Your task to perform on an android device: Clear the cart on bestbuy.com. Search for "alienware area 51" on bestbuy.com, select the first entry, add it to the cart, then select checkout. Image 0: 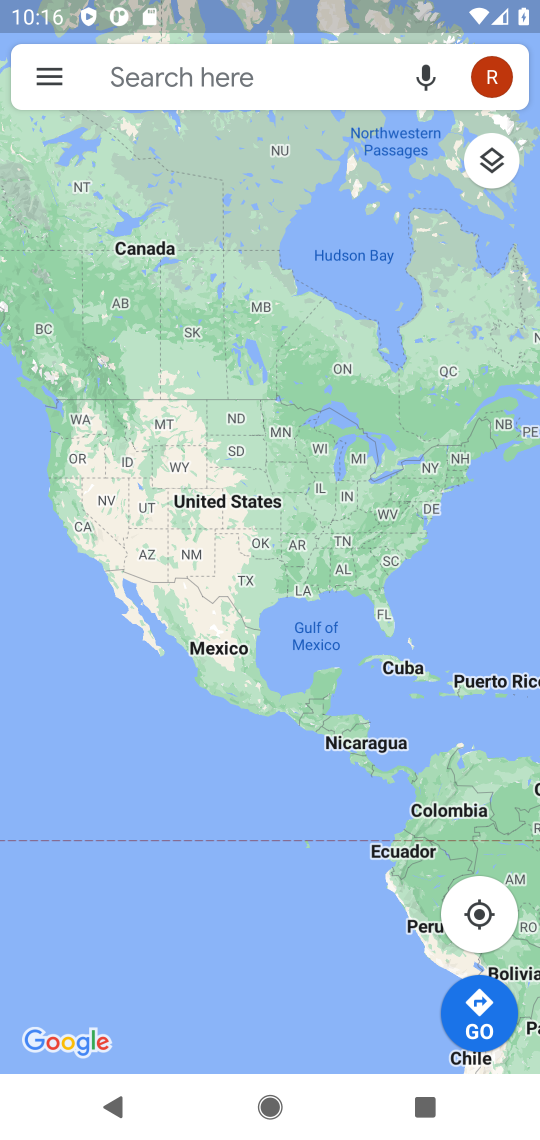
Step 0: press home button
Your task to perform on an android device: Clear the cart on bestbuy.com. Search for "alienware area 51" on bestbuy.com, select the first entry, add it to the cart, then select checkout. Image 1: 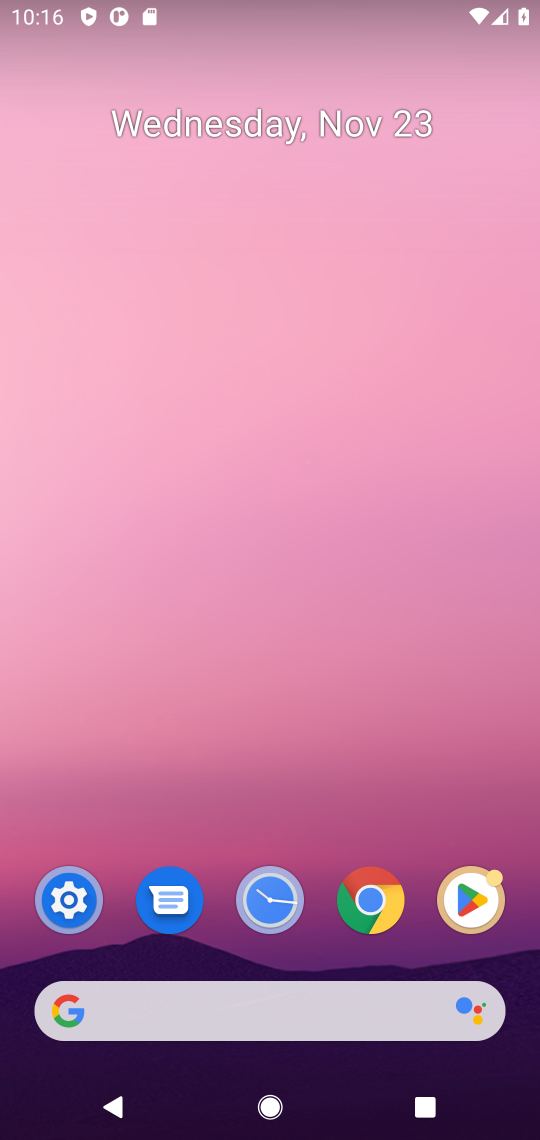
Step 1: click (340, 1005)
Your task to perform on an android device: Clear the cart on bestbuy.com. Search for "alienware area 51" on bestbuy.com, select the first entry, add it to the cart, then select checkout. Image 2: 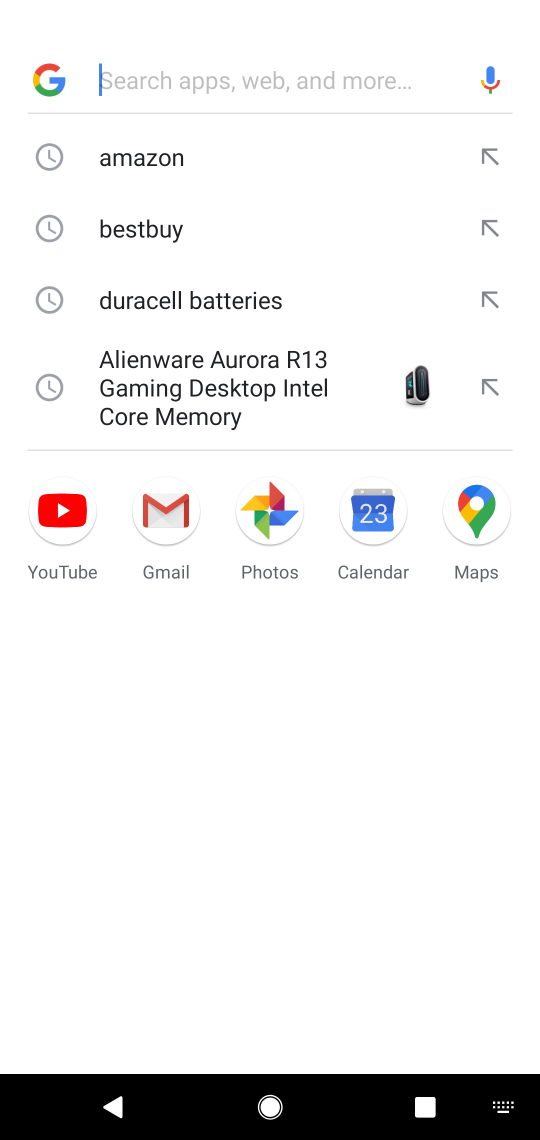
Step 2: type "bestbuy.com"
Your task to perform on an android device: Clear the cart on bestbuy.com. Search for "alienware area 51" on bestbuy.com, select the first entry, add it to the cart, then select checkout. Image 3: 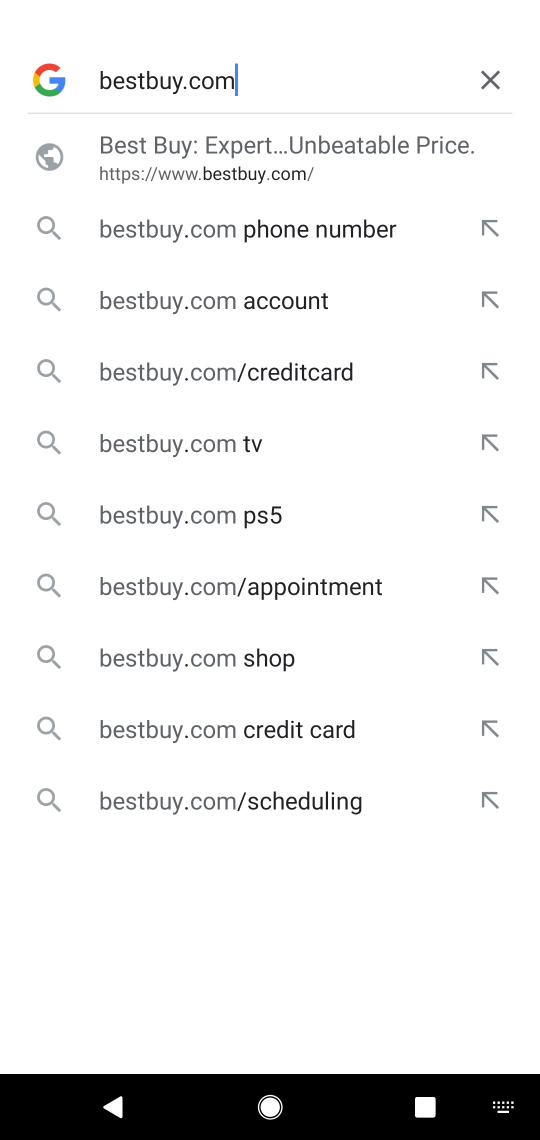
Step 3: click (277, 157)
Your task to perform on an android device: Clear the cart on bestbuy.com. Search for "alienware area 51" on bestbuy.com, select the first entry, add it to the cart, then select checkout. Image 4: 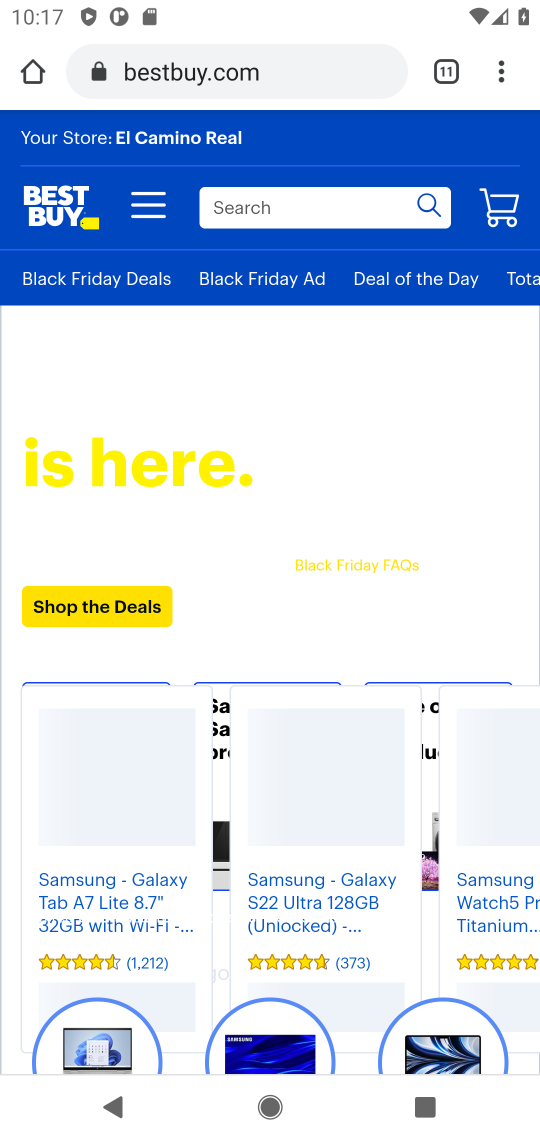
Step 4: click (254, 199)
Your task to perform on an android device: Clear the cart on bestbuy.com. Search for "alienware area 51" on bestbuy.com, select the first entry, add it to the cart, then select checkout. Image 5: 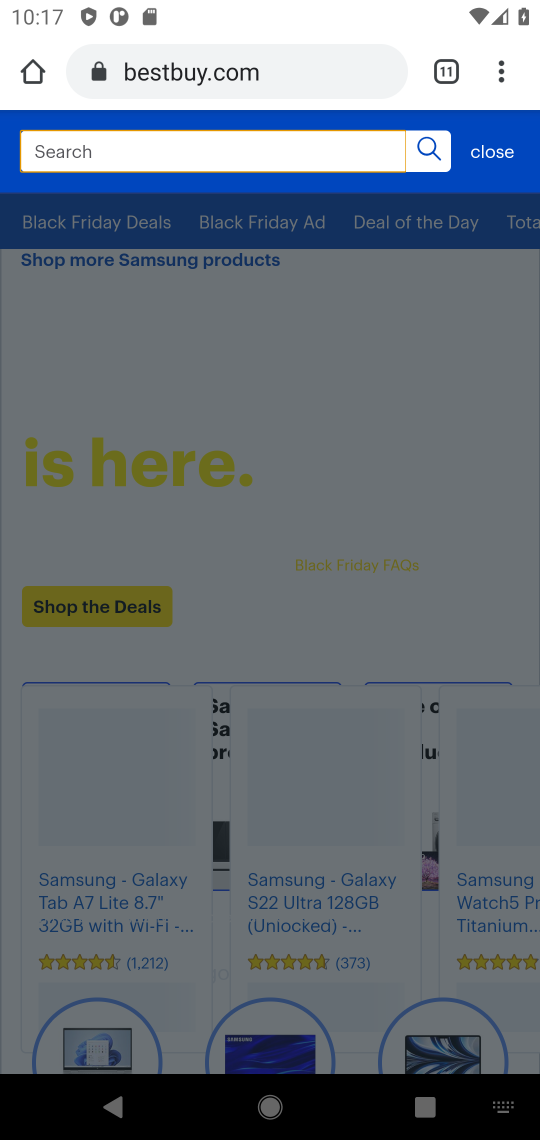
Step 5: task complete